Your task to perform on an android device: set the timer Image 0: 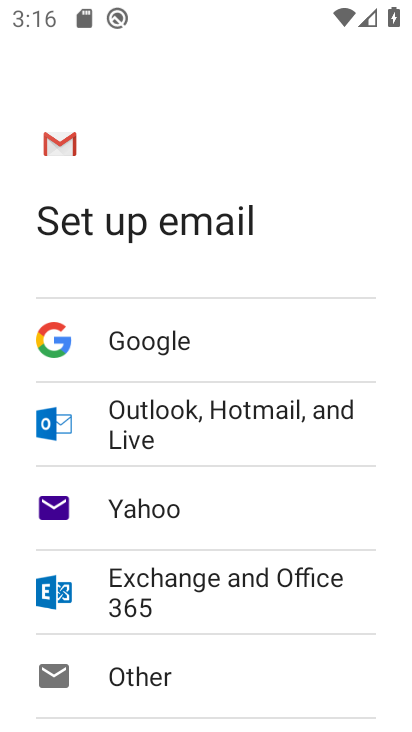
Step 0: press home button
Your task to perform on an android device: set the timer Image 1: 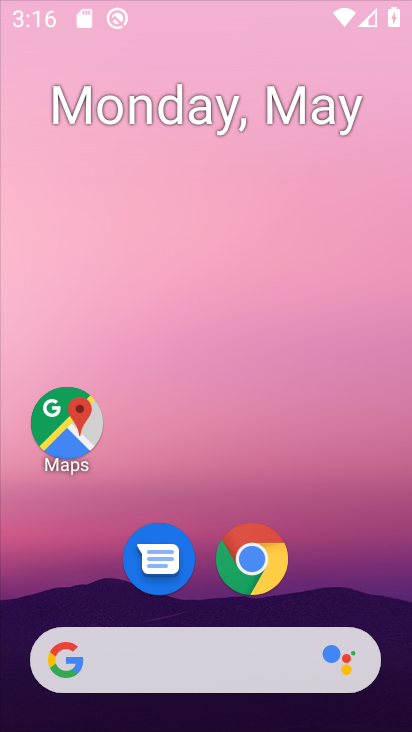
Step 1: drag from (239, 608) to (289, 197)
Your task to perform on an android device: set the timer Image 2: 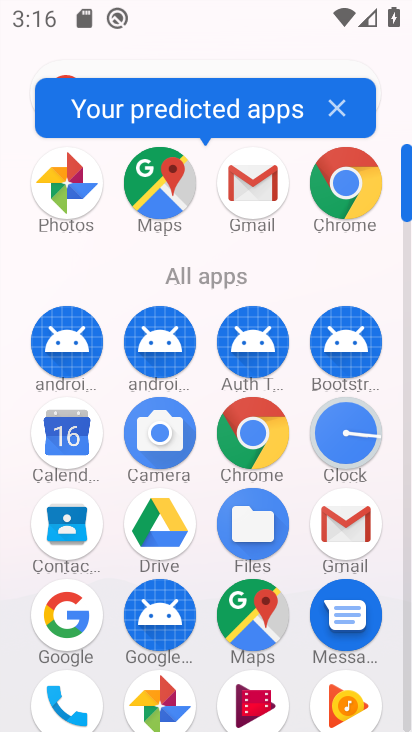
Step 2: click (336, 417)
Your task to perform on an android device: set the timer Image 3: 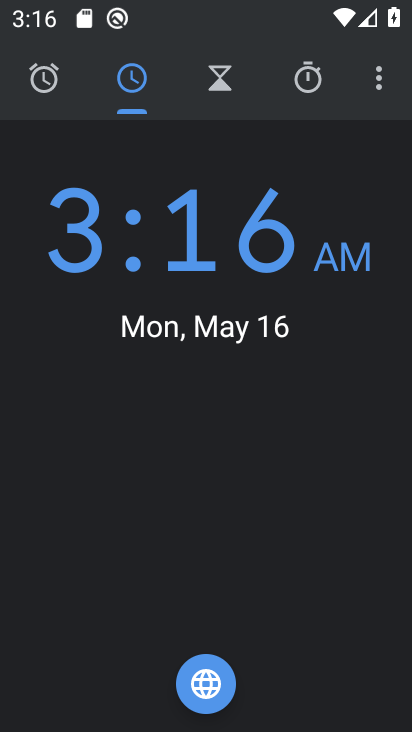
Step 3: click (206, 79)
Your task to perform on an android device: set the timer Image 4: 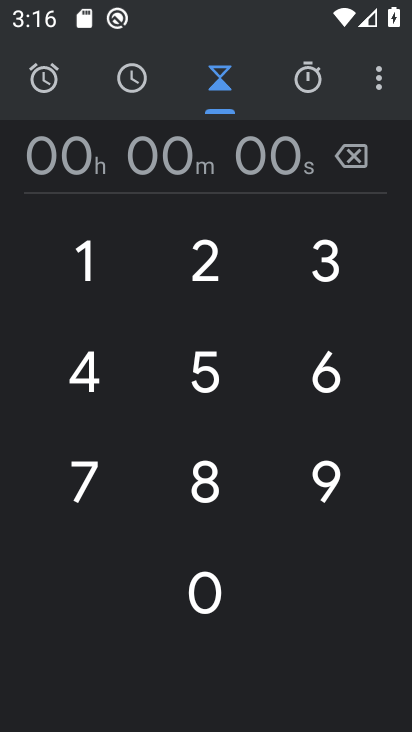
Step 4: click (87, 163)
Your task to perform on an android device: set the timer Image 5: 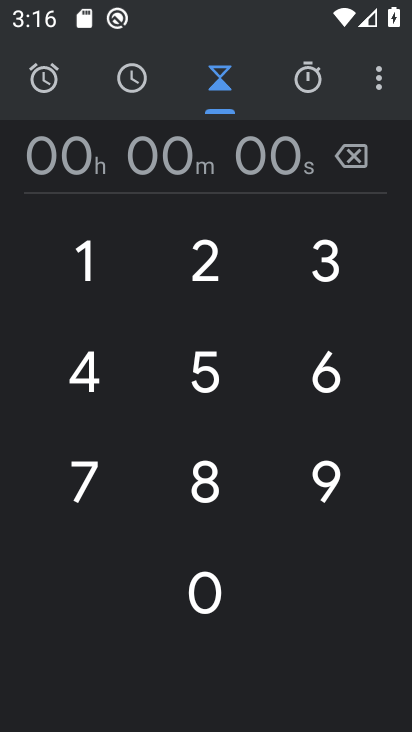
Step 5: type "090909090"
Your task to perform on an android device: set the timer Image 6: 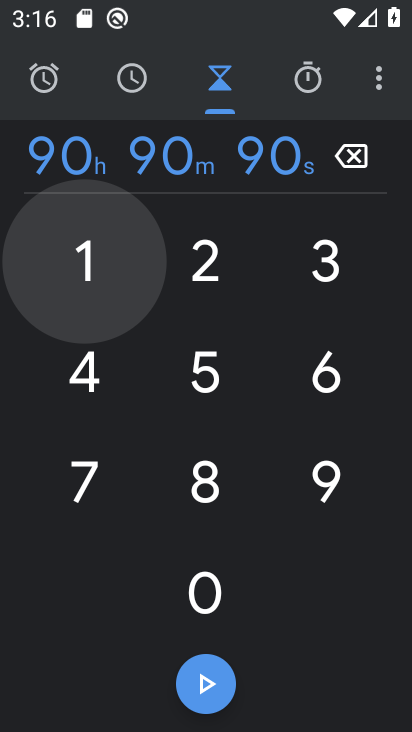
Step 6: click (228, 678)
Your task to perform on an android device: set the timer Image 7: 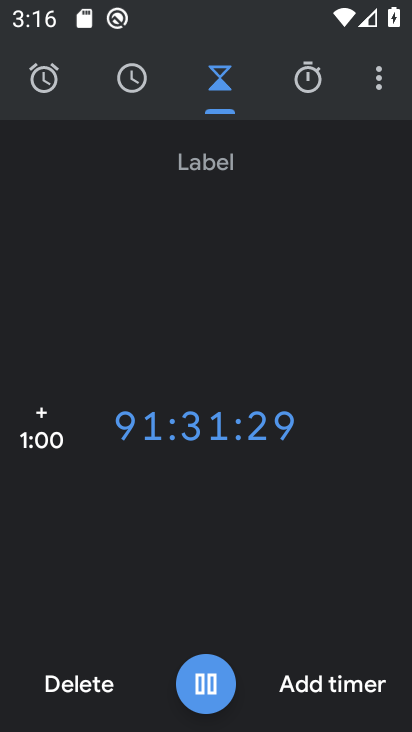
Step 7: task complete